Your task to perform on an android device: Open settings Image 0: 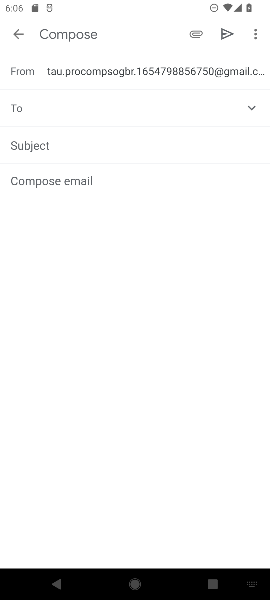
Step 0: press home button
Your task to perform on an android device: Open settings Image 1: 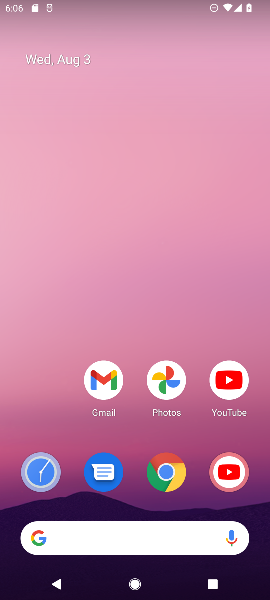
Step 1: drag from (240, 498) to (90, 9)
Your task to perform on an android device: Open settings Image 2: 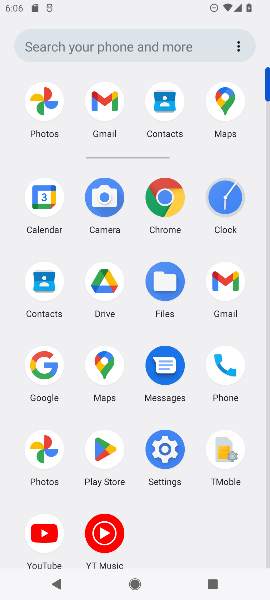
Step 2: click (161, 446)
Your task to perform on an android device: Open settings Image 3: 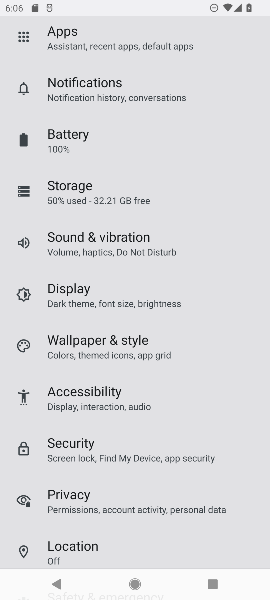
Step 3: task complete